Your task to perform on an android device: See recent photos Image 0: 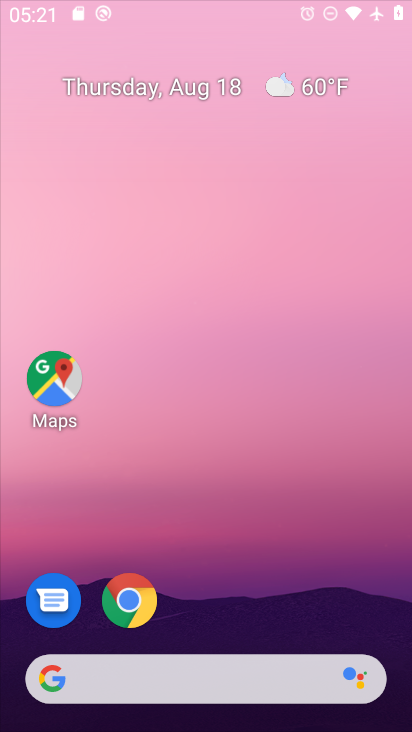
Step 0: press home button
Your task to perform on an android device: See recent photos Image 1: 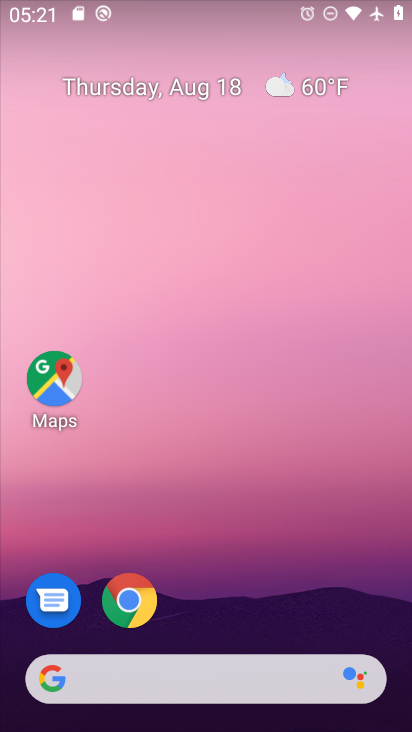
Step 1: click (39, 682)
Your task to perform on an android device: See recent photos Image 2: 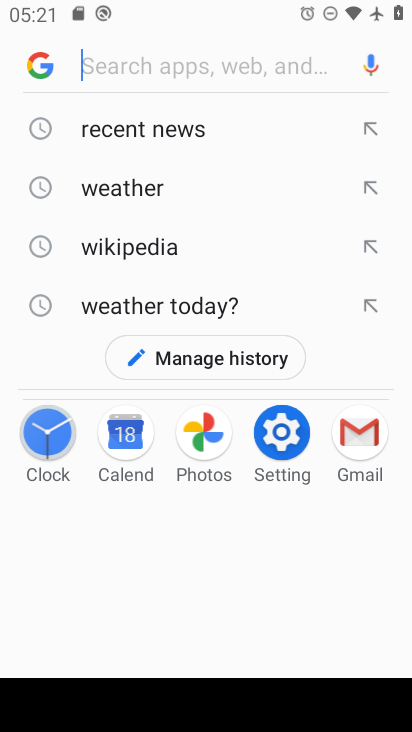
Step 2: click (141, 131)
Your task to perform on an android device: See recent photos Image 3: 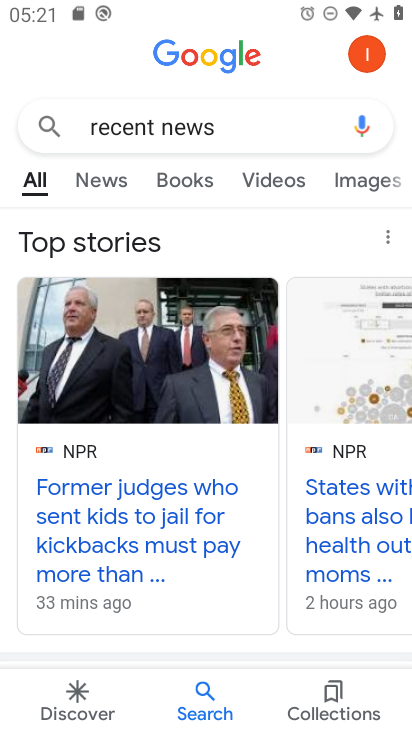
Step 3: task complete